Your task to perform on an android device: What is the recent news? Image 0: 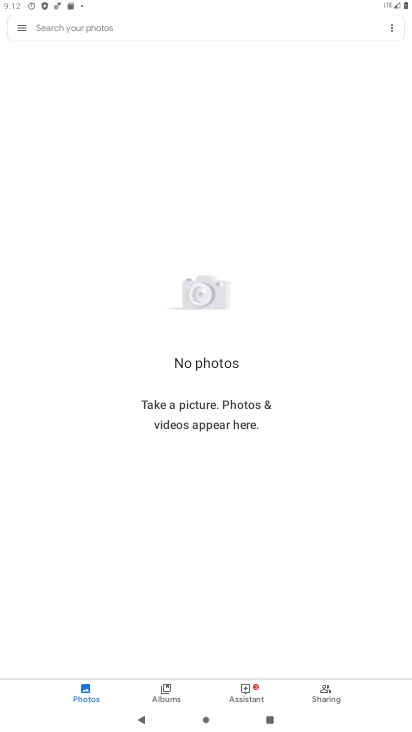
Step 0: press home button
Your task to perform on an android device: What is the recent news? Image 1: 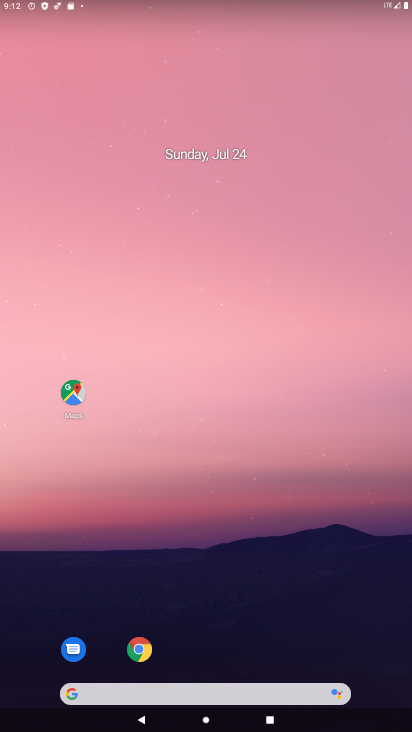
Step 1: click (150, 693)
Your task to perform on an android device: What is the recent news? Image 2: 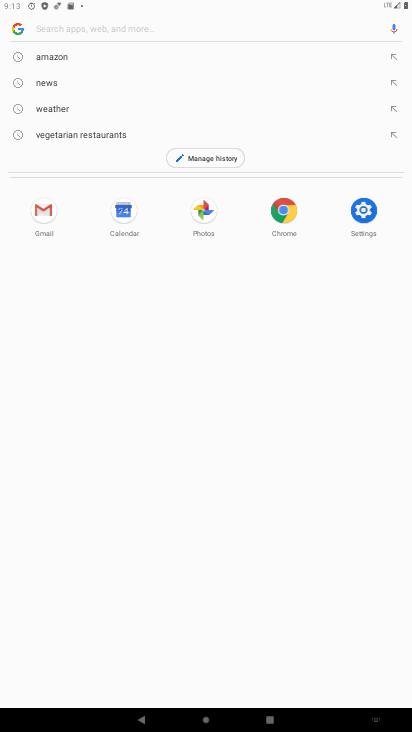
Step 2: type "What is the recent news?"
Your task to perform on an android device: What is the recent news? Image 3: 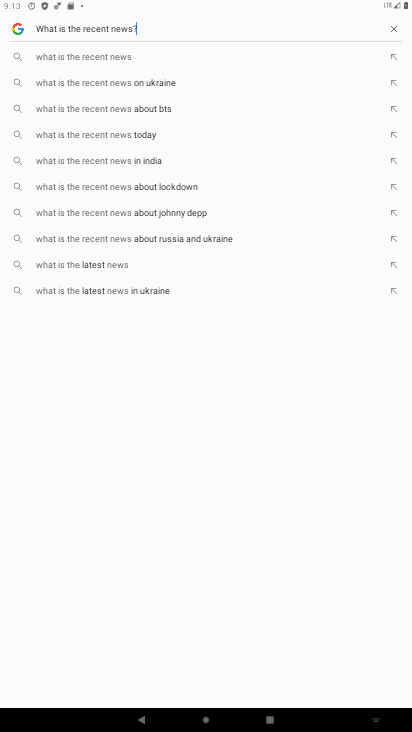
Step 3: type ""
Your task to perform on an android device: What is the recent news? Image 4: 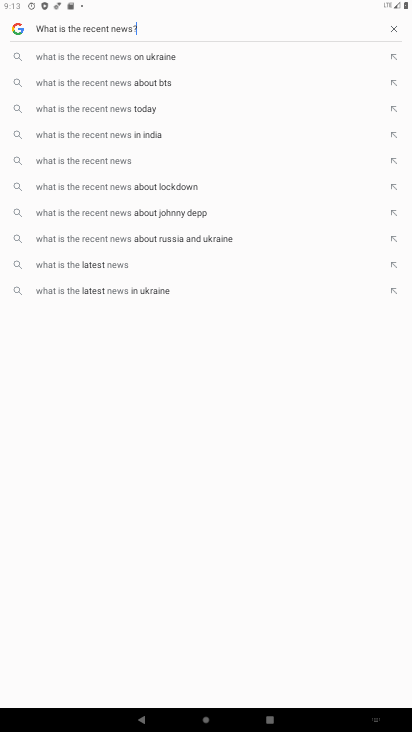
Step 4: type ""
Your task to perform on an android device: What is the recent news? Image 5: 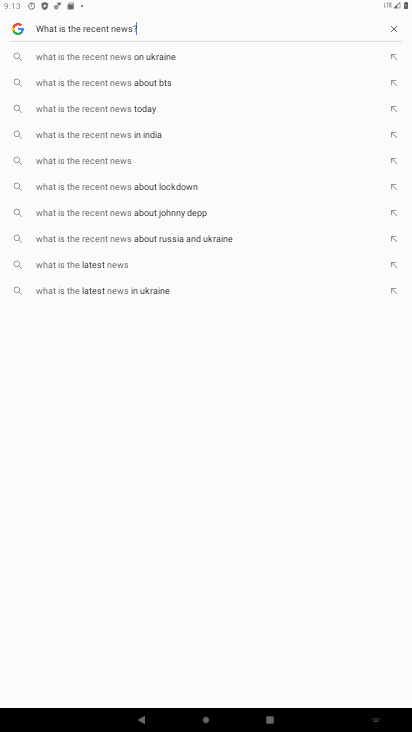
Step 5: type ""
Your task to perform on an android device: What is the recent news? Image 6: 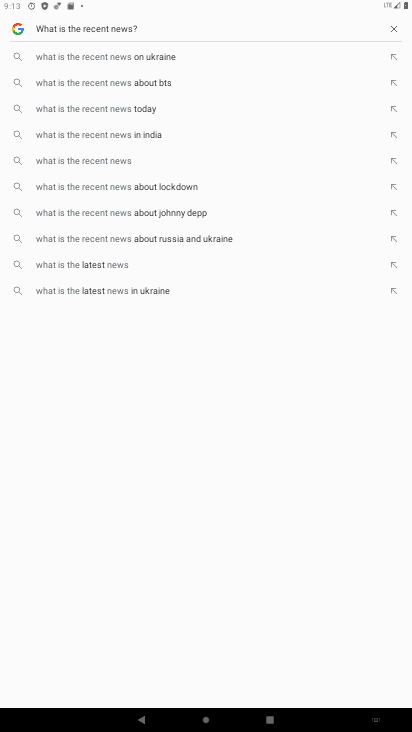
Step 6: type ""
Your task to perform on an android device: What is the recent news? Image 7: 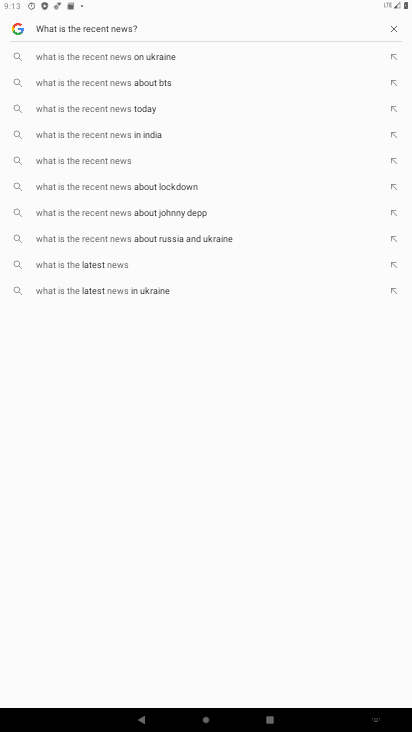
Step 7: task complete